Your task to perform on an android device: Open Maps and search for coffee Image 0: 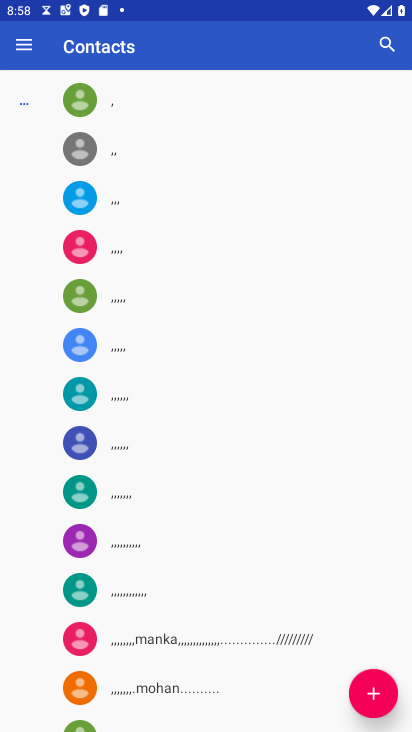
Step 0: press home button
Your task to perform on an android device: Open Maps and search for coffee Image 1: 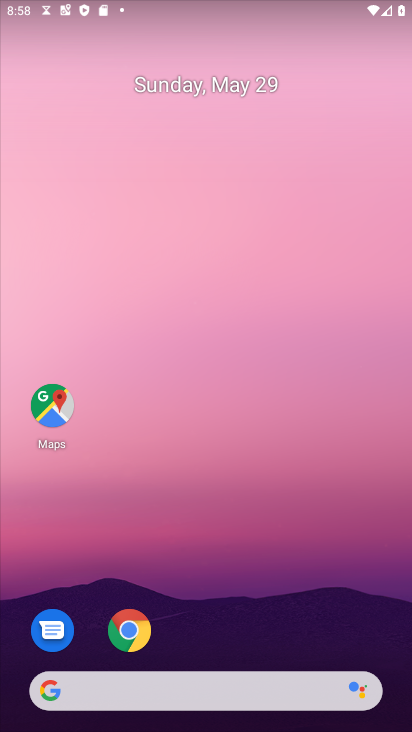
Step 1: click (66, 402)
Your task to perform on an android device: Open Maps and search for coffee Image 2: 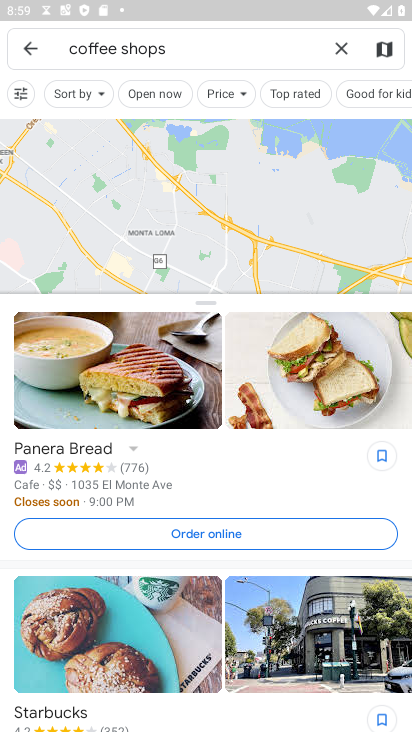
Step 2: click (341, 44)
Your task to perform on an android device: Open Maps and search for coffee Image 3: 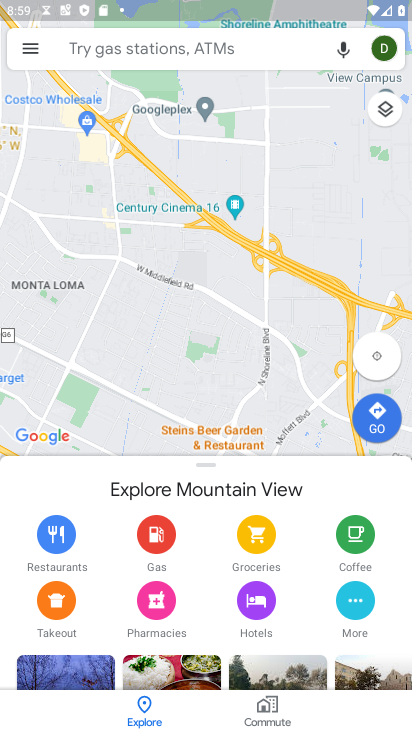
Step 3: click (207, 42)
Your task to perform on an android device: Open Maps and search for coffee Image 4: 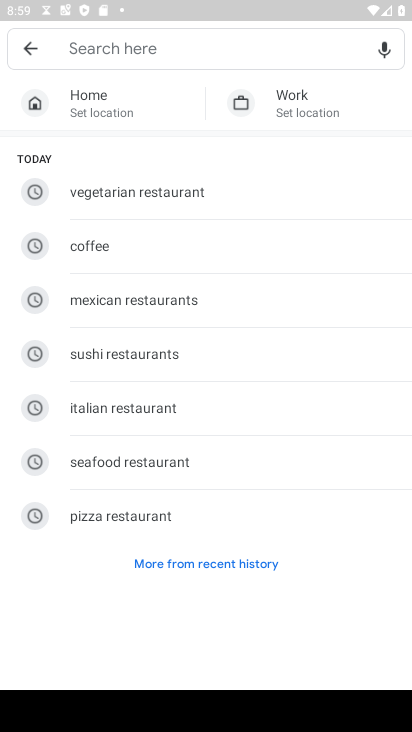
Step 4: click (98, 250)
Your task to perform on an android device: Open Maps and search for coffee Image 5: 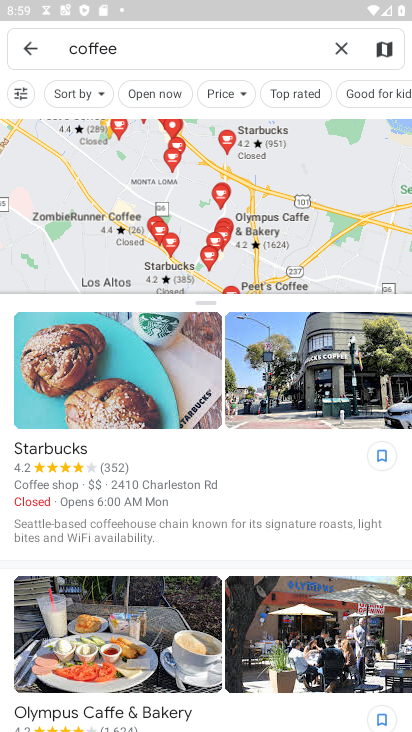
Step 5: task complete